Your task to perform on an android device: Search for good BBQ restaurants Image 0: 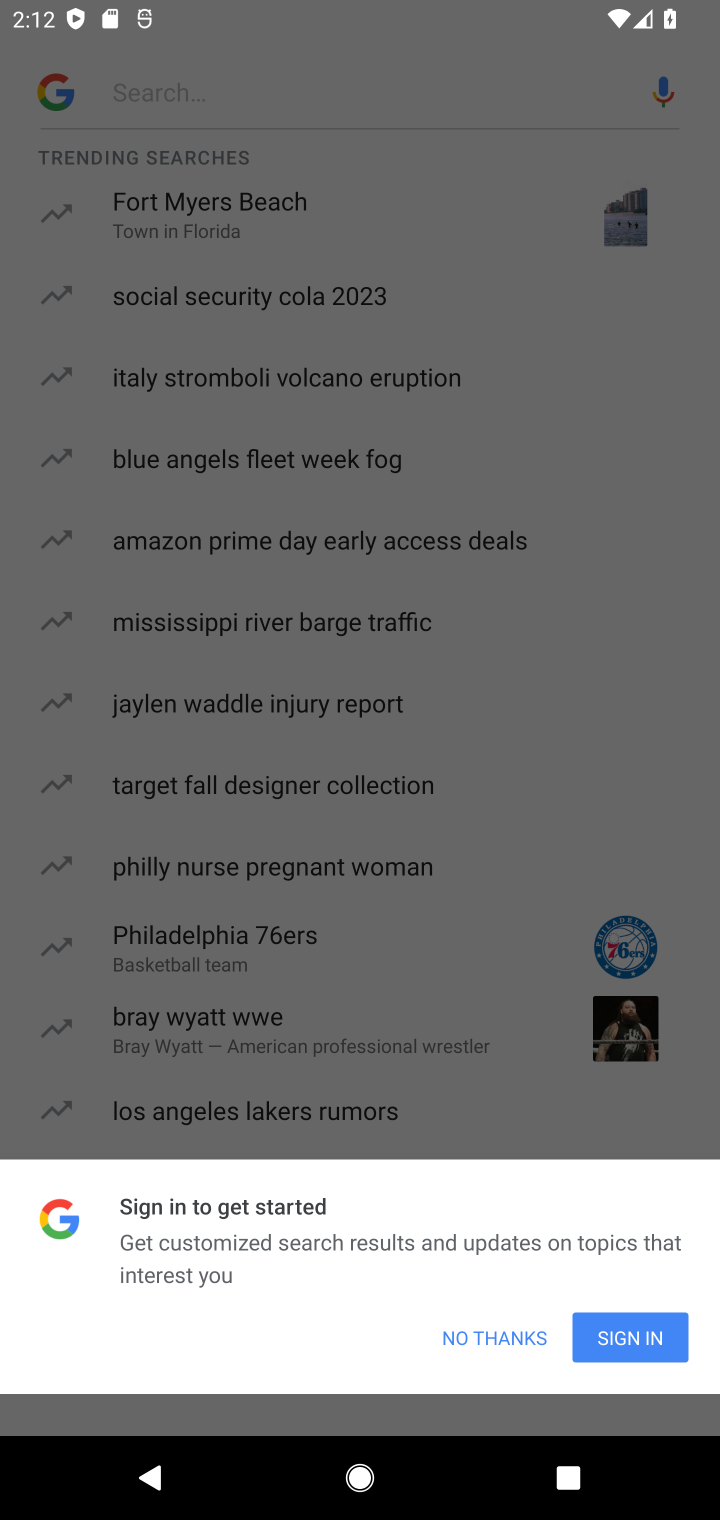
Step 0: press home button
Your task to perform on an android device: Search for good BBQ restaurants Image 1: 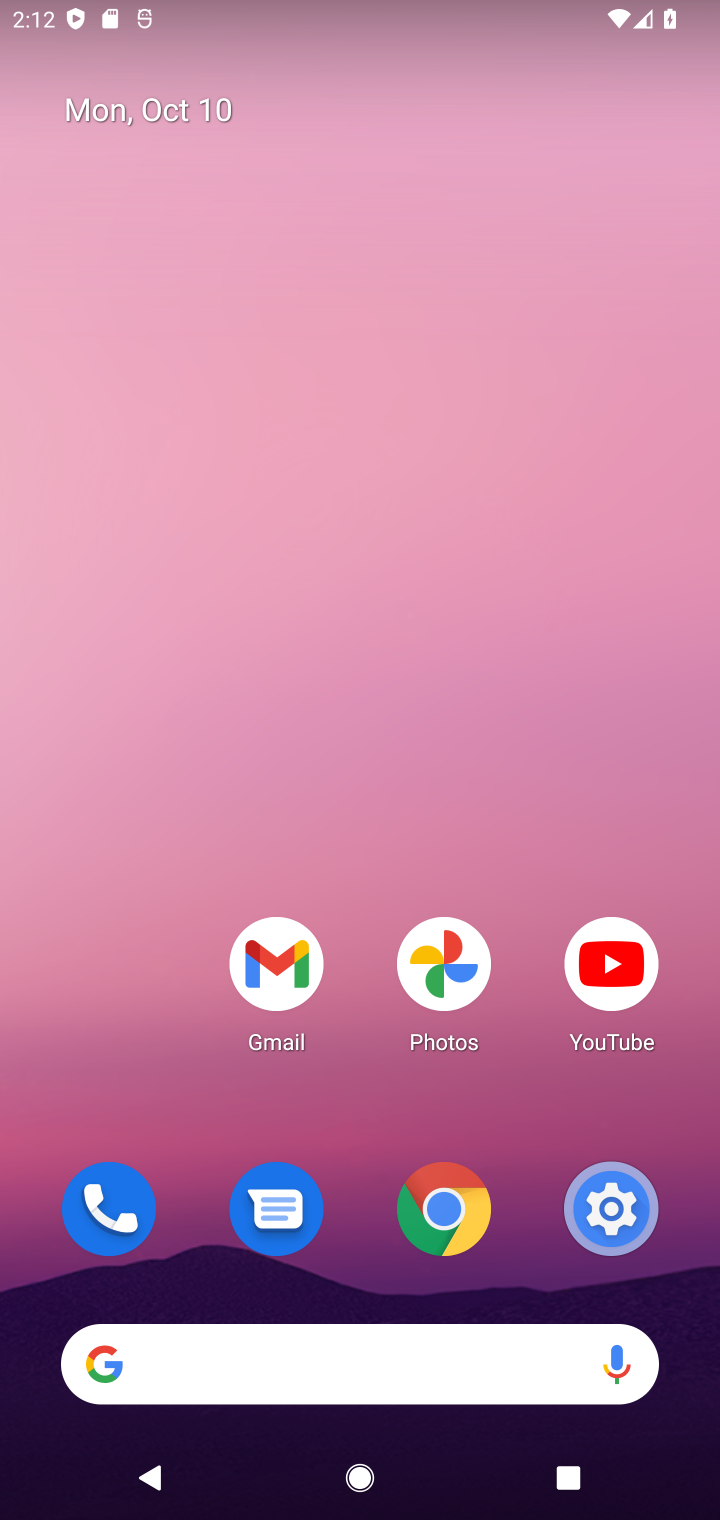
Step 1: click (469, 1213)
Your task to perform on an android device: Search for good BBQ restaurants Image 2: 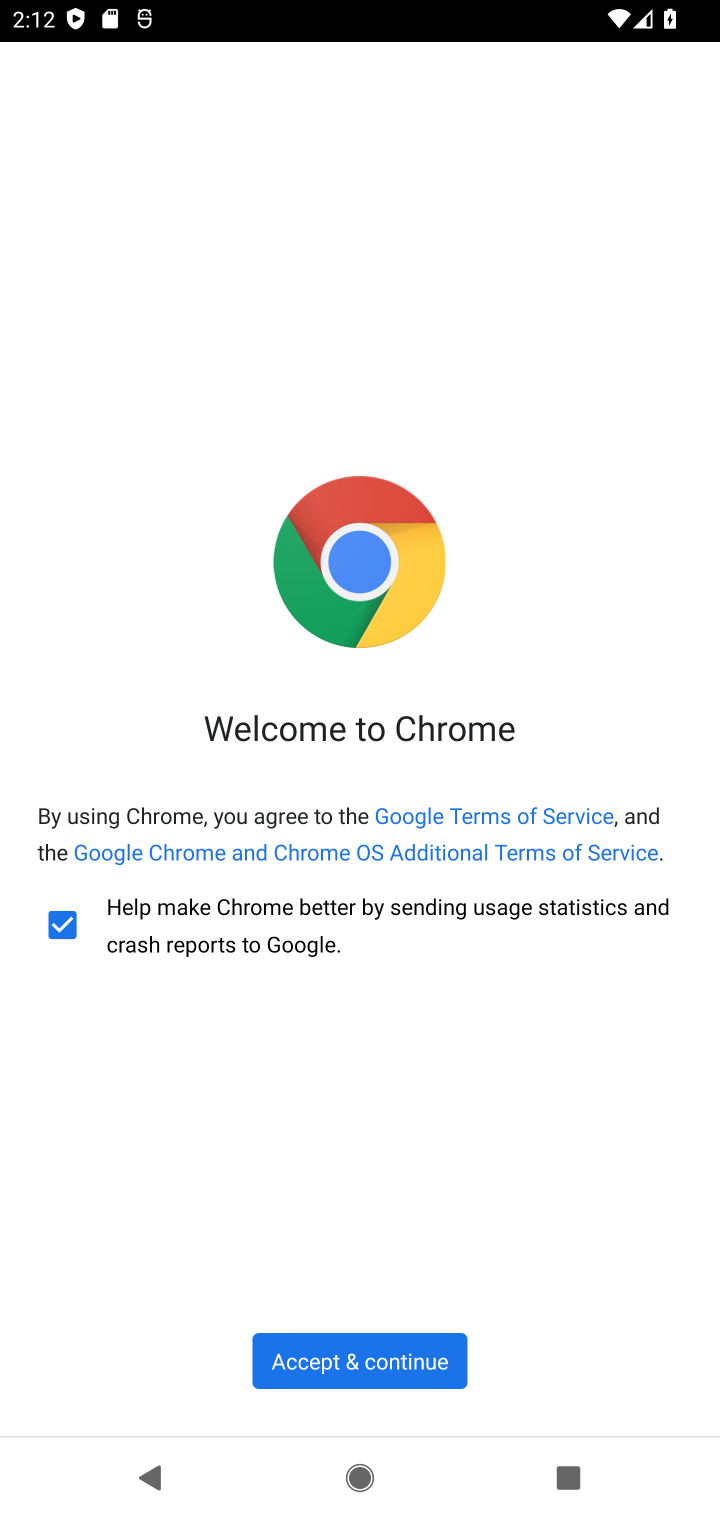
Step 2: click (340, 1365)
Your task to perform on an android device: Search for good BBQ restaurants Image 3: 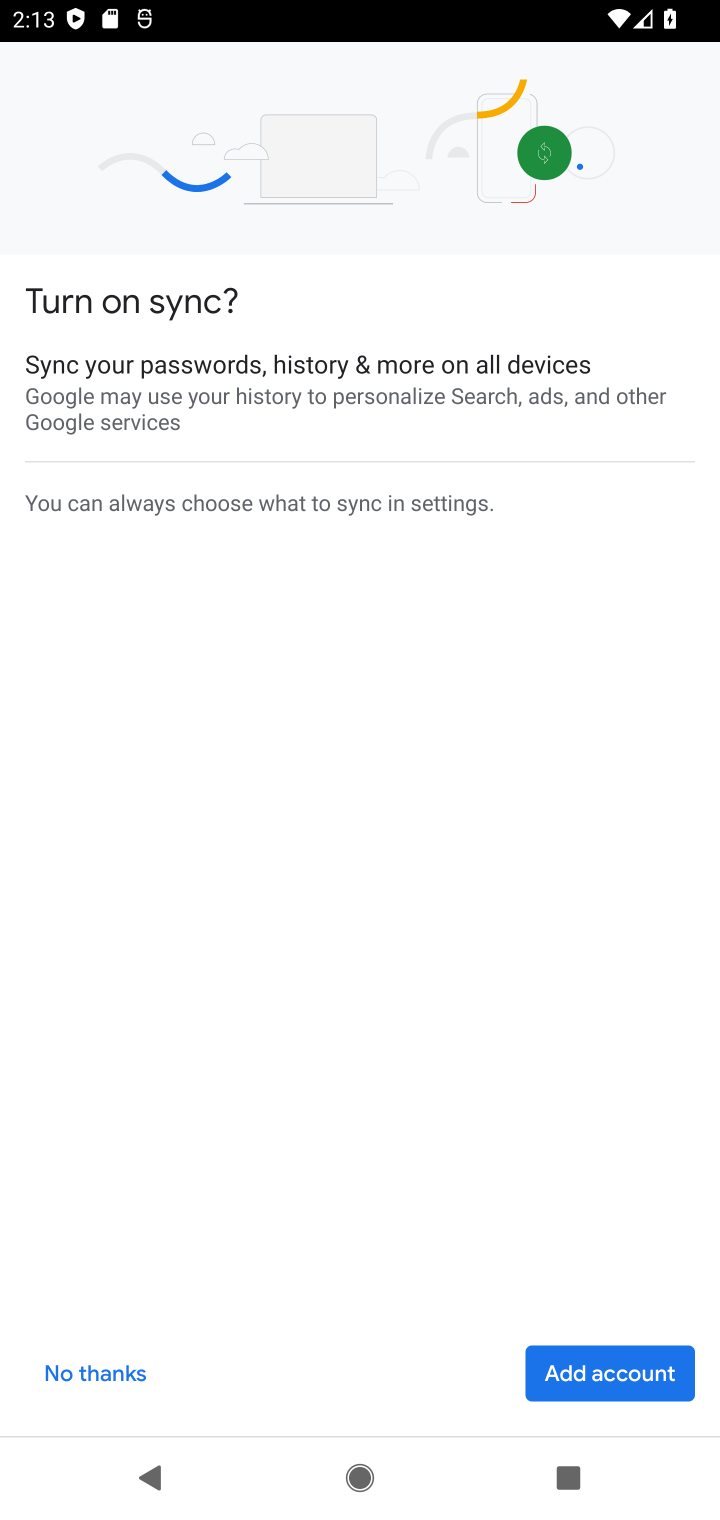
Step 3: click (70, 1379)
Your task to perform on an android device: Search for good BBQ restaurants Image 4: 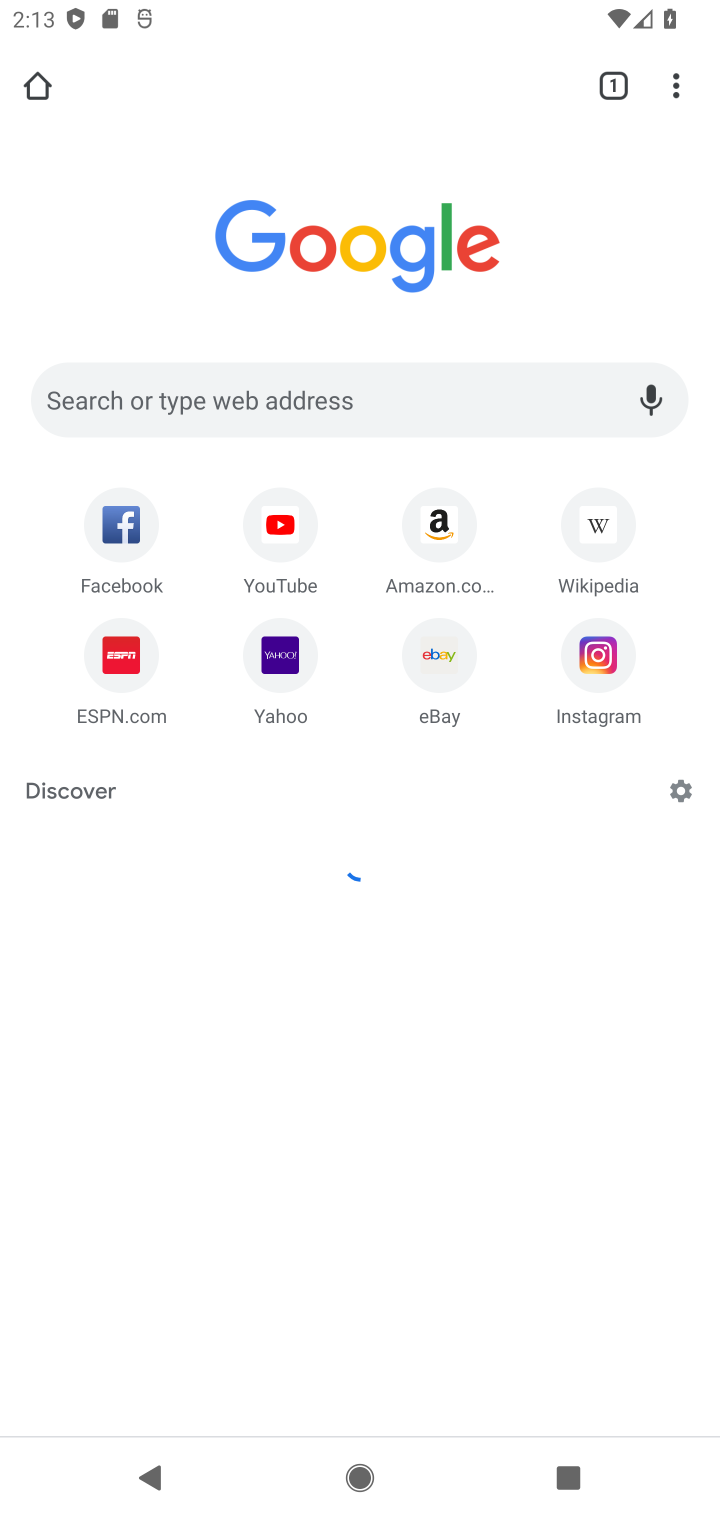
Step 4: click (429, 406)
Your task to perform on an android device: Search for good BBQ restaurants Image 5: 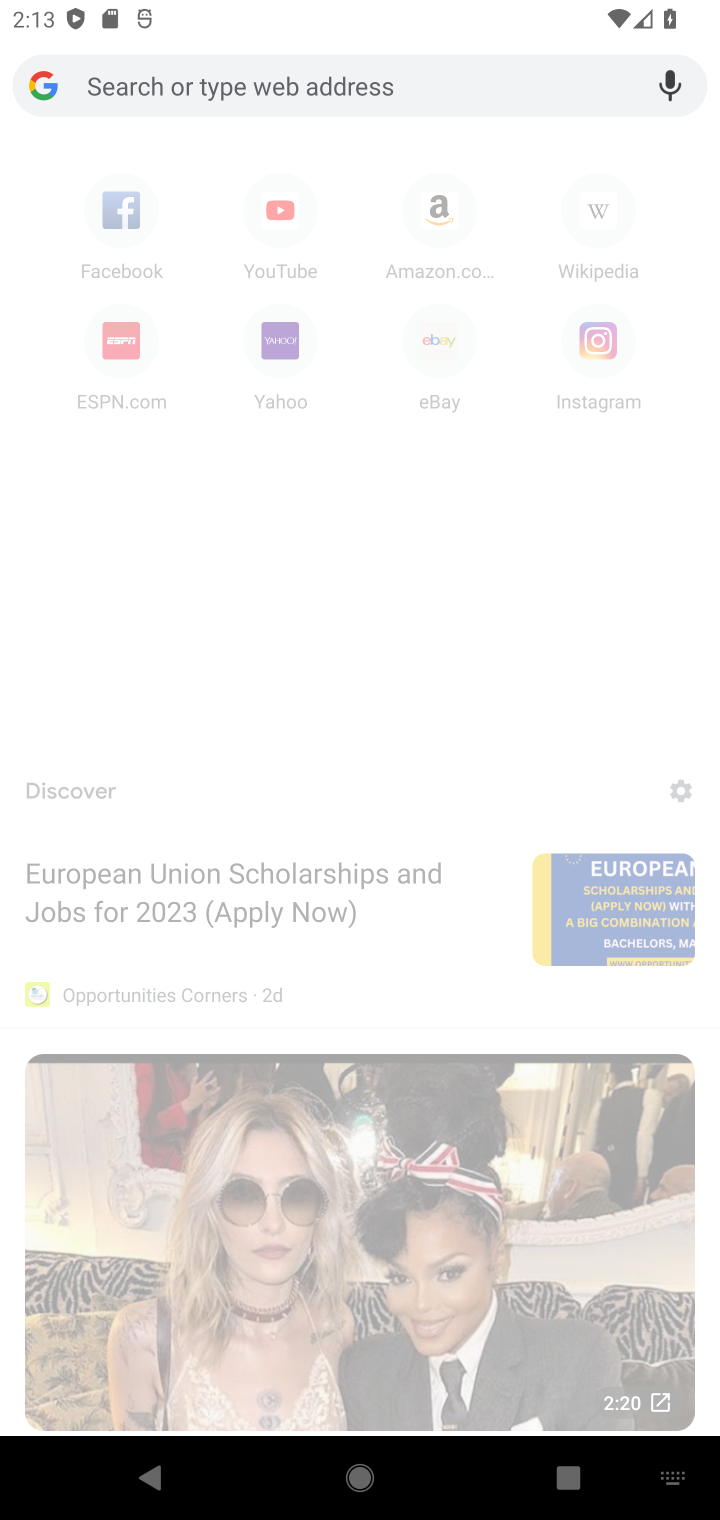
Step 5: type "good BBQ restaurants"
Your task to perform on an android device: Search for good BBQ restaurants Image 6: 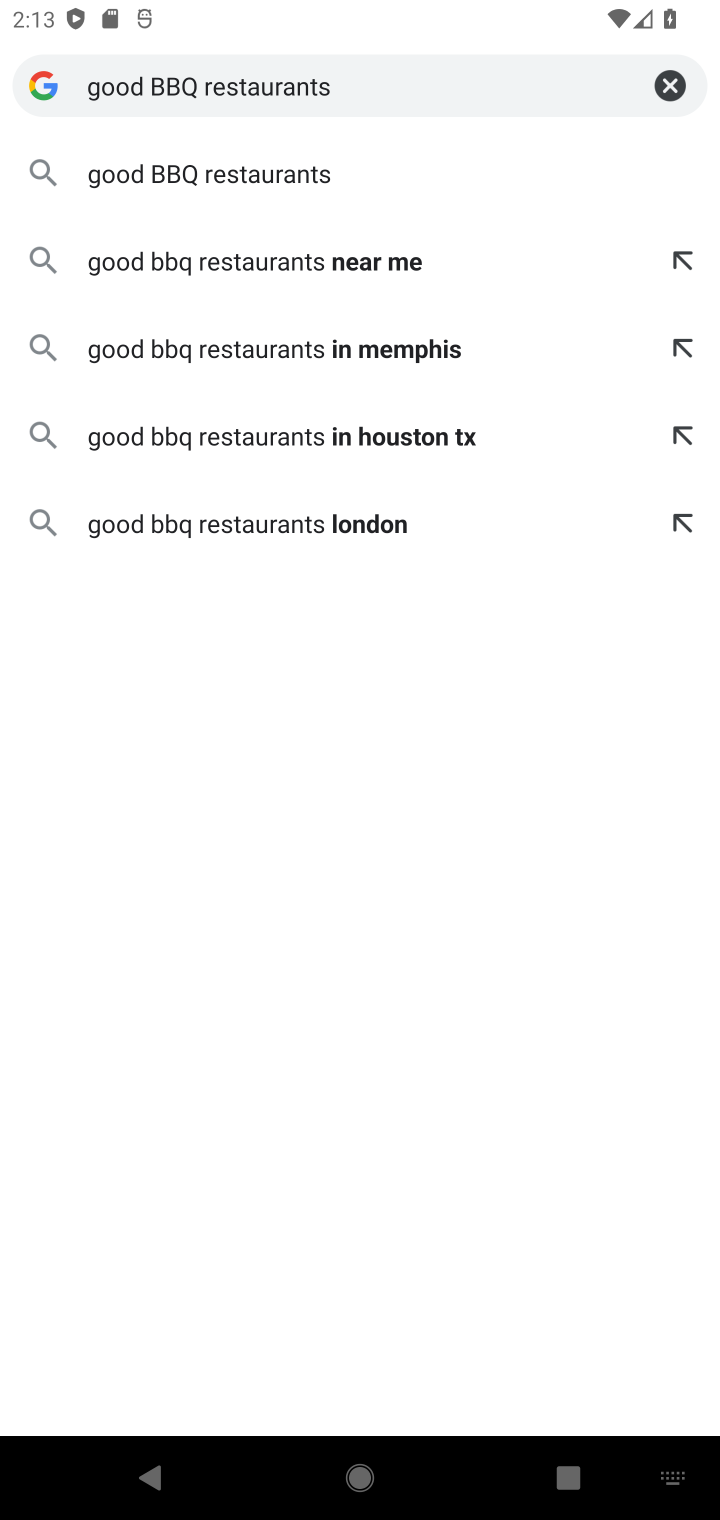
Step 6: click (297, 162)
Your task to perform on an android device: Search for good BBQ restaurants Image 7: 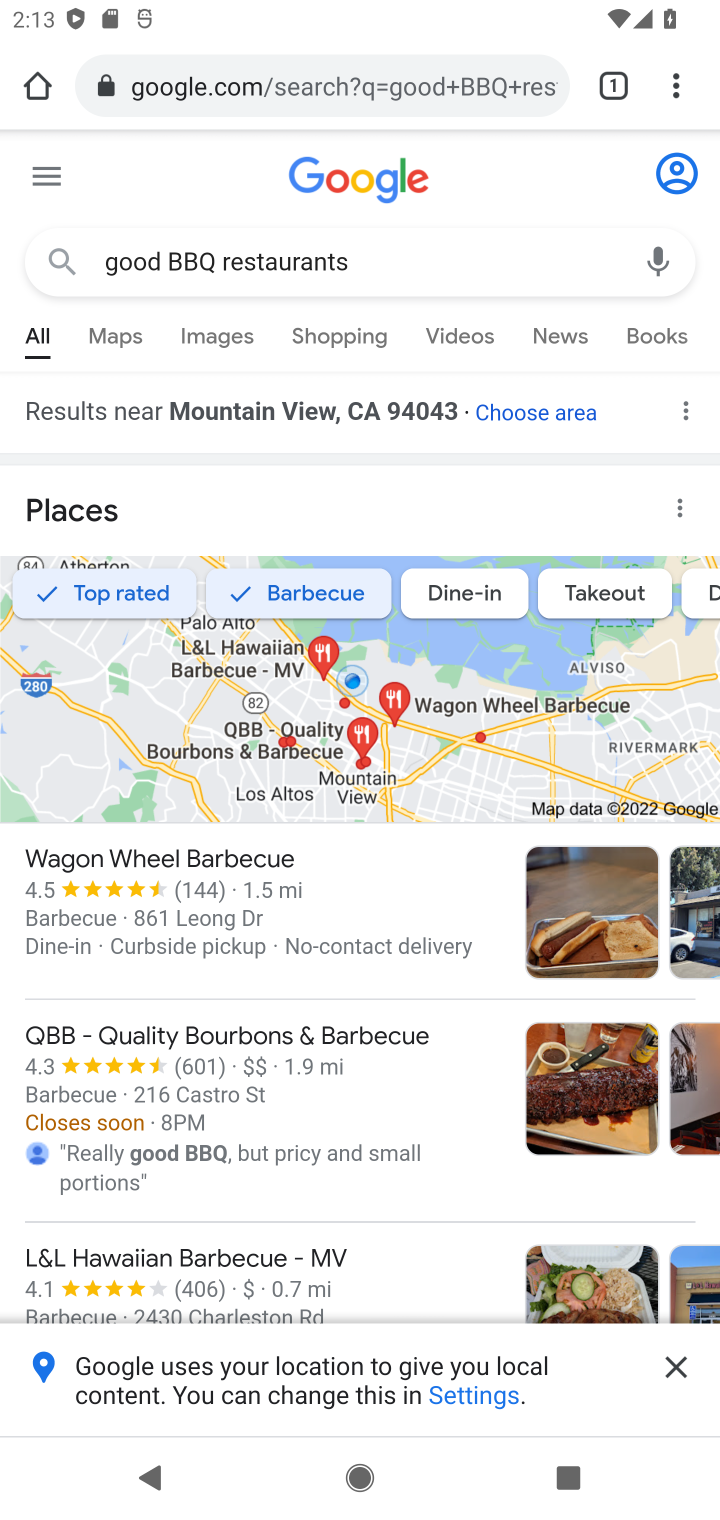
Step 7: task complete